Your task to perform on an android device: see sites visited before in the chrome app Image 0: 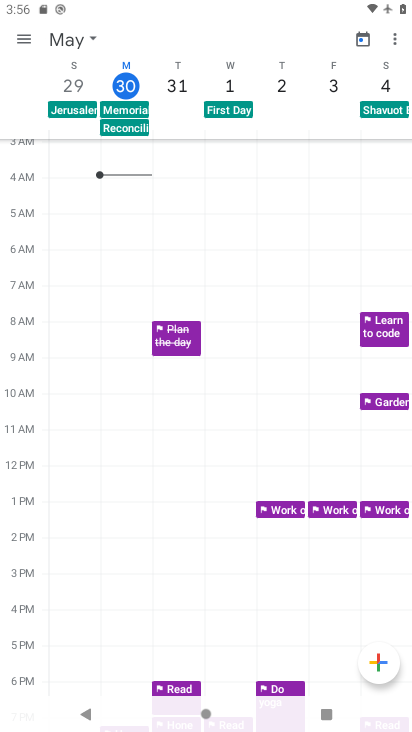
Step 0: press home button
Your task to perform on an android device: see sites visited before in the chrome app Image 1: 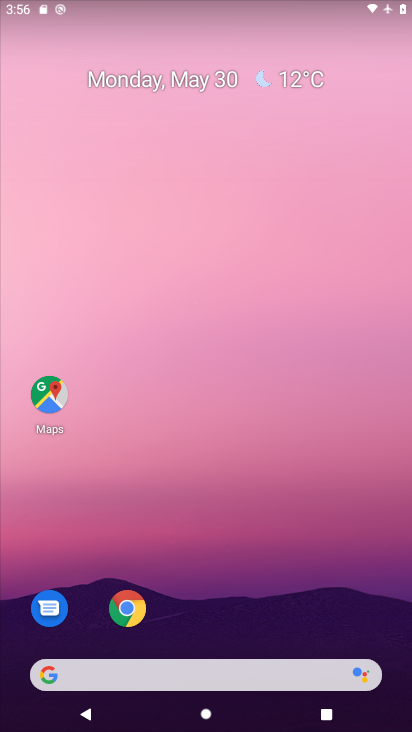
Step 1: click (118, 602)
Your task to perform on an android device: see sites visited before in the chrome app Image 2: 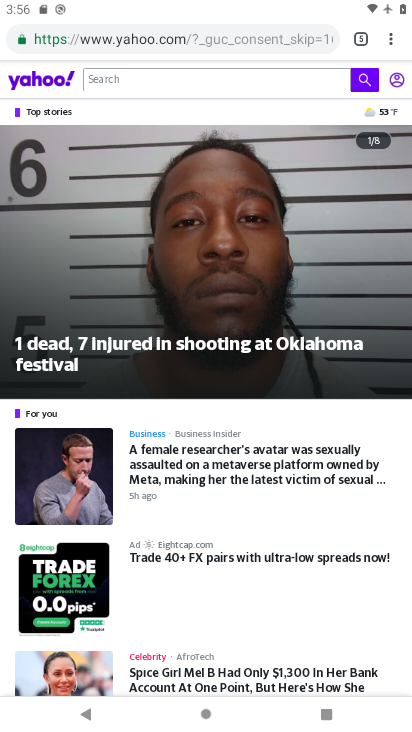
Step 2: click (395, 39)
Your task to perform on an android device: see sites visited before in the chrome app Image 3: 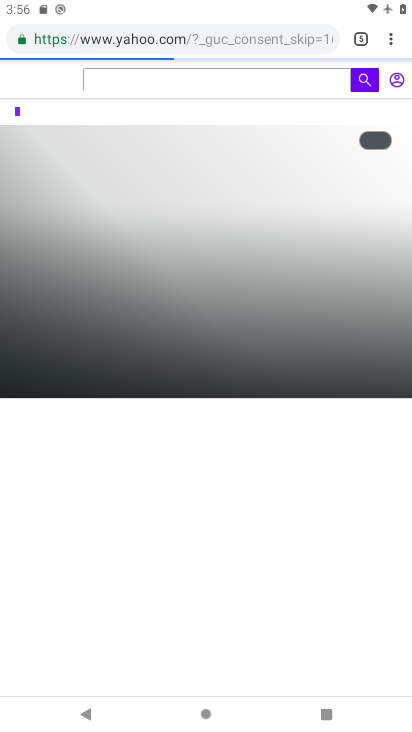
Step 3: click (388, 31)
Your task to perform on an android device: see sites visited before in the chrome app Image 4: 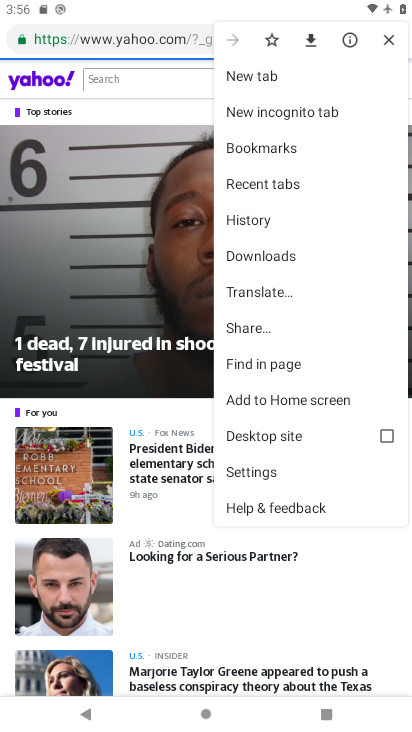
Step 4: click (260, 210)
Your task to perform on an android device: see sites visited before in the chrome app Image 5: 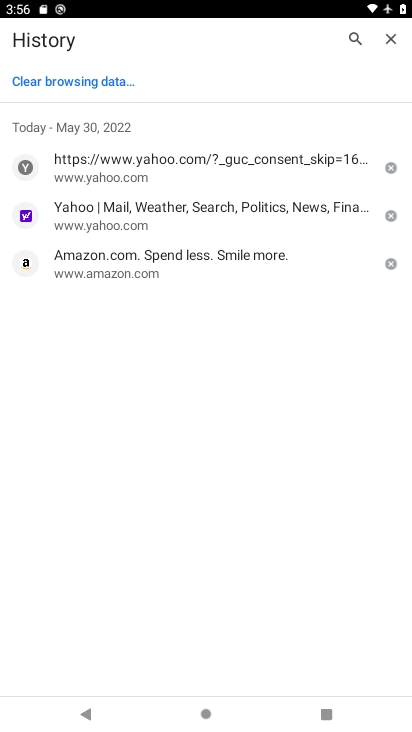
Step 5: task complete